Your task to perform on an android device: turn on data saver in the chrome app Image 0: 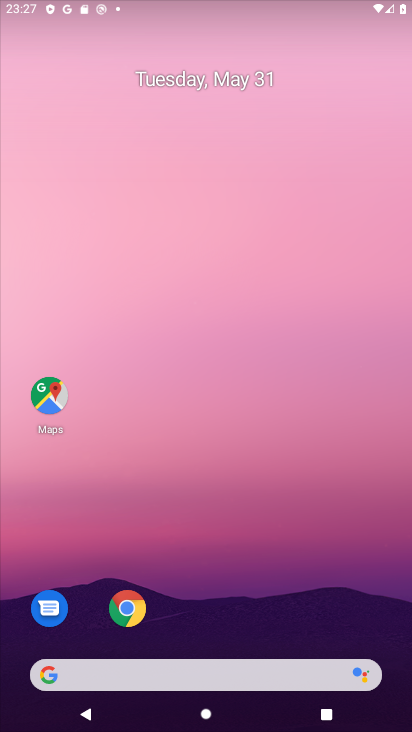
Step 0: press home button
Your task to perform on an android device: turn on data saver in the chrome app Image 1: 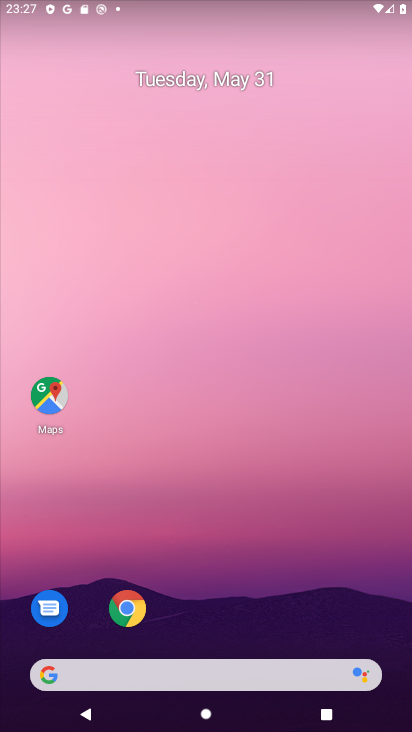
Step 1: click (127, 603)
Your task to perform on an android device: turn on data saver in the chrome app Image 2: 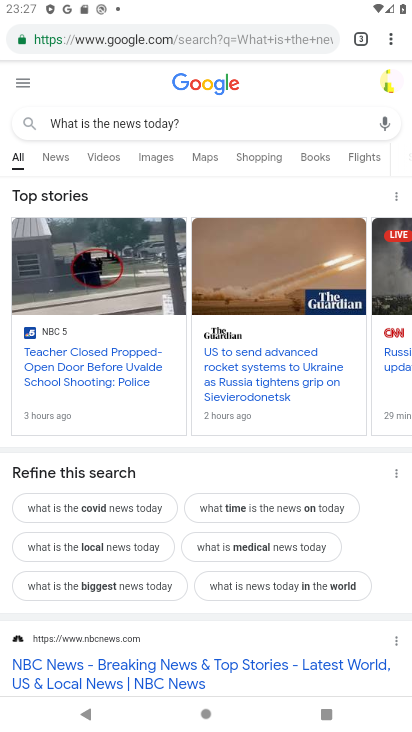
Step 2: drag from (387, 44) to (247, 432)
Your task to perform on an android device: turn on data saver in the chrome app Image 3: 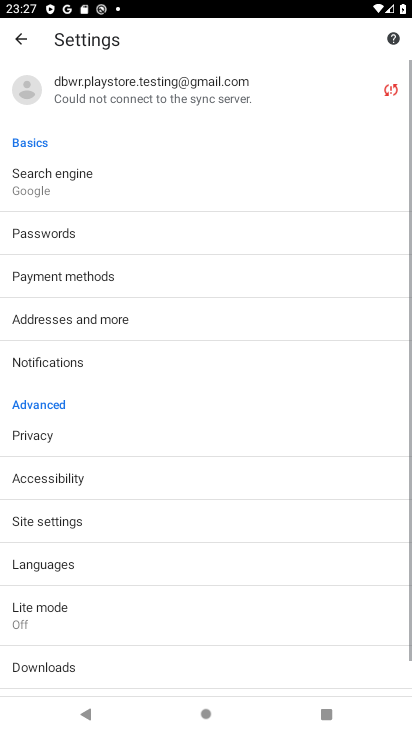
Step 3: click (36, 626)
Your task to perform on an android device: turn on data saver in the chrome app Image 4: 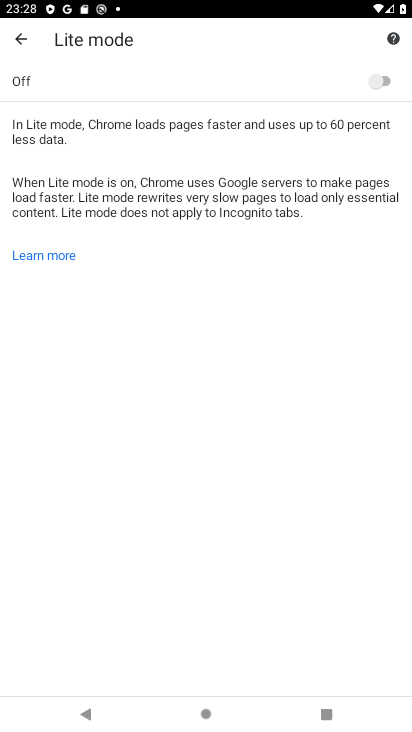
Step 4: click (292, 91)
Your task to perform on an android device: turn on data saver in the chrome app Image 5: 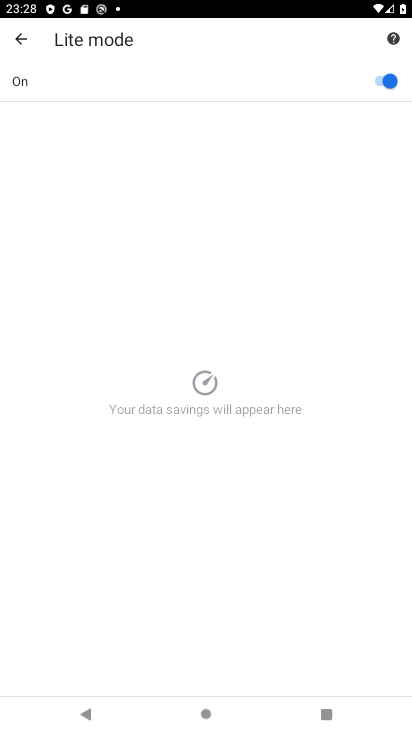
Step 5: task complete